Your task to perform on an android device: set default search engine in the chrome app Image 0: 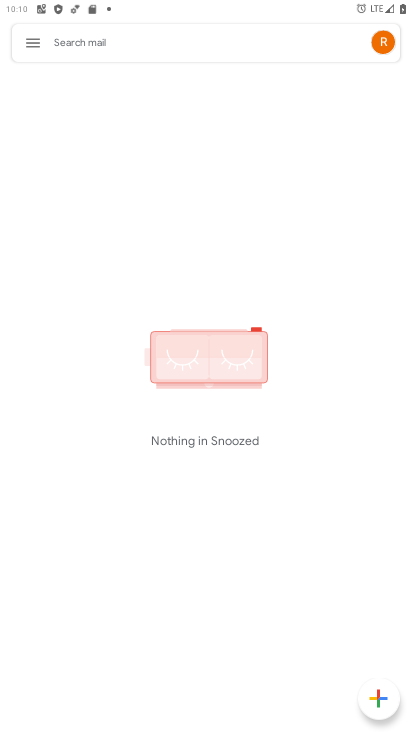
Step 0: drag from (187, 608) to (250, 426)
Your task to perform on an android device: set default search engine in the chrome app Image 1: 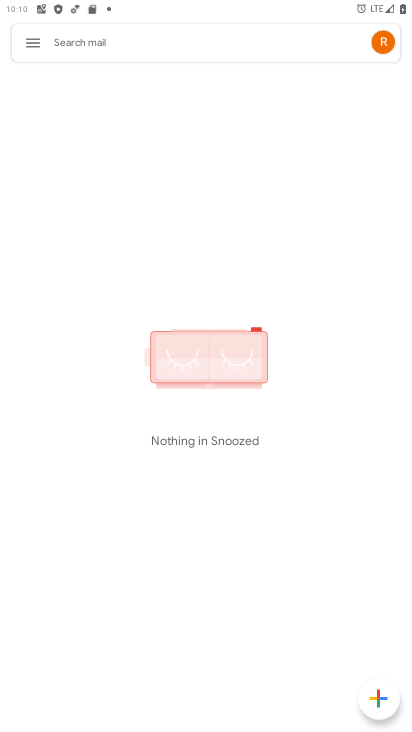
Step 1: press home button
Your task to perform on an android device: set default search engine in the chrome app Image 2: 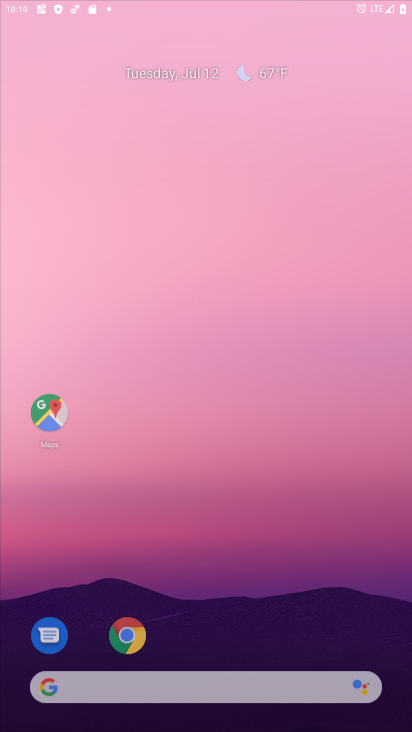
Step 2: drag from (189, 625) to (195, 257)
Your task to perform on an android device: set default search engine in the chrome app Image 3: 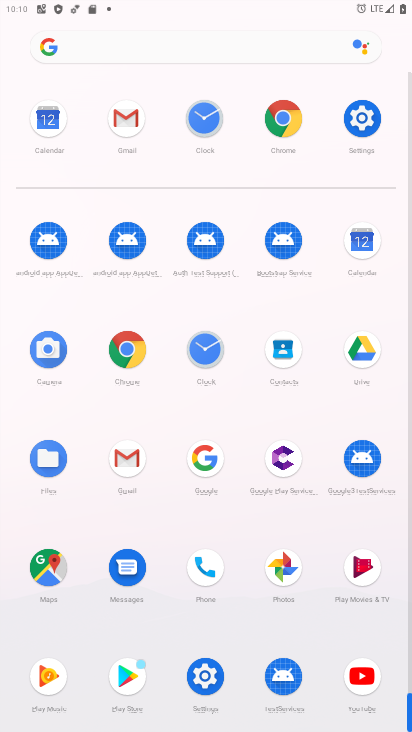
Step 3: click (122, 356)
Your task to perform on an android device: set default search engine in the chrome app Image 4: 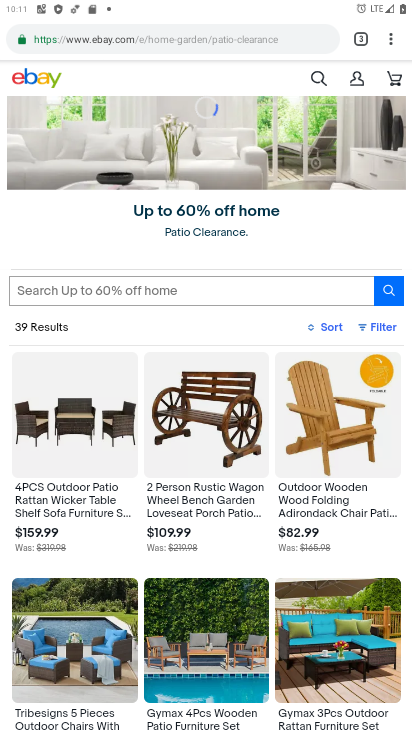
Step 4: click (389, 42)
Your task to perform on an android device: set default search engine in the chrome app Image 5: 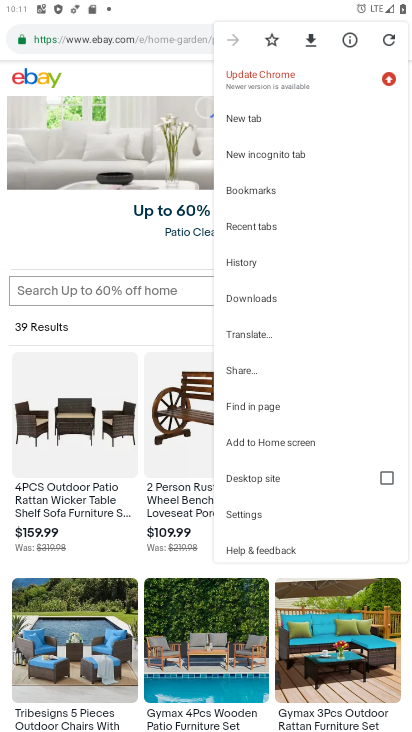
Step 5: click (256, 507)
Your task to perform on an android device: set default search engine in the chrome app Image 6: 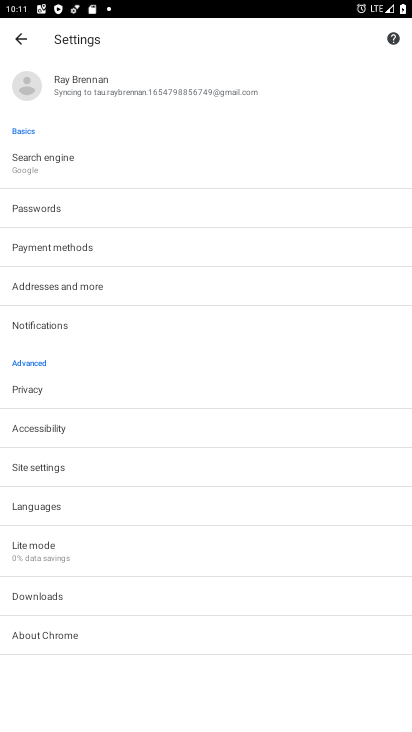
Step 6: click (80, 159)
Your task to perform on an android device: set default search engine in the chrome app Image 7: 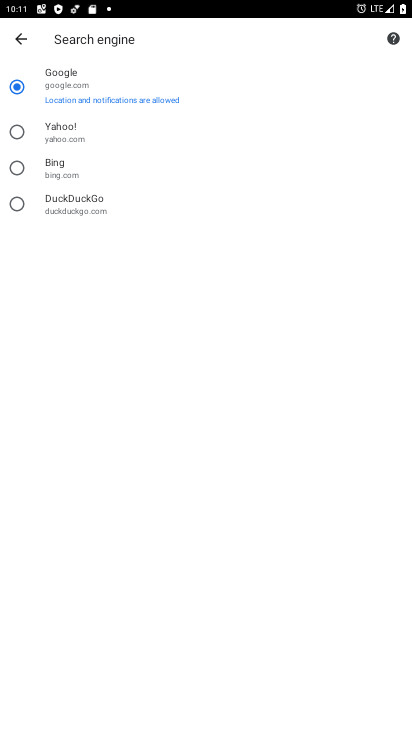
Step 7: click (63, 89)
Your task to perform on an android device: set default search engine in the chrome app Image 8: 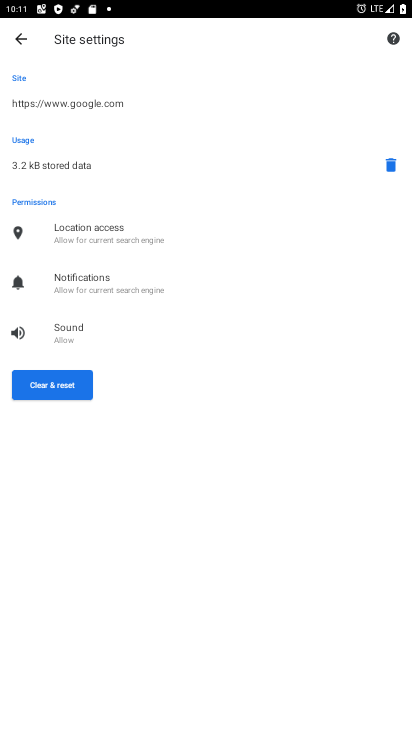
Step 8: task complete